Your task to perform on an android device: Go to sound settings Image 0: 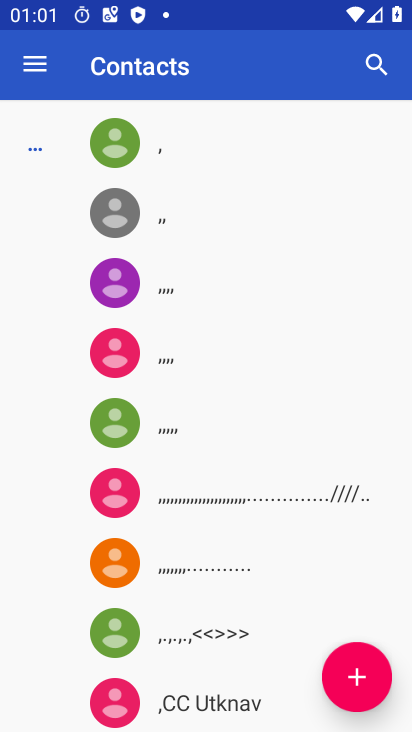
Step 0: press home button
Your task to perform on an android device: Go to sound settings Image 1: 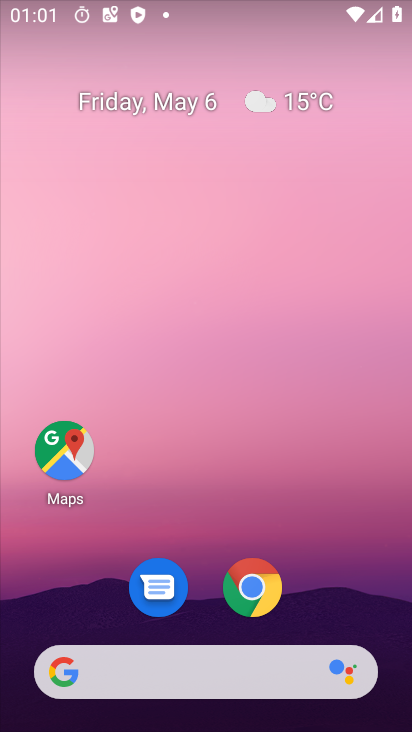
Step 1: drag from (391, 596) to (378, 348)
Your task to perform on an android device: Go to sound settings Image 2: 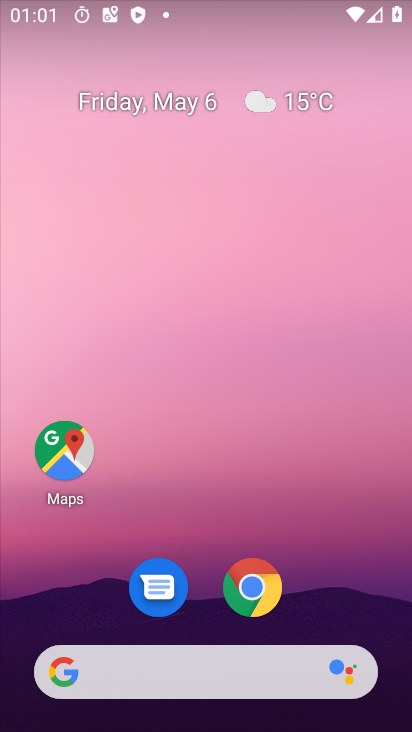
Step 2: drag from (369, 601) to (359, 366)
Your task to perform on an android device: Go to sound settings Image 3: 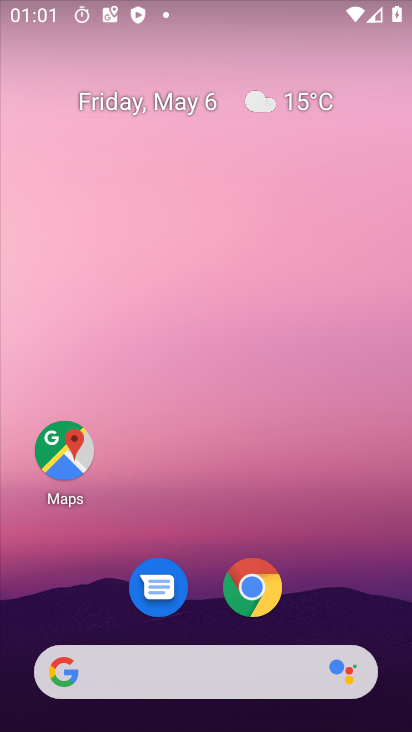
Step 3: drag from (398, 608) to (385, 417)
Your task to perform on an android device: Go to sound settings Image 4: 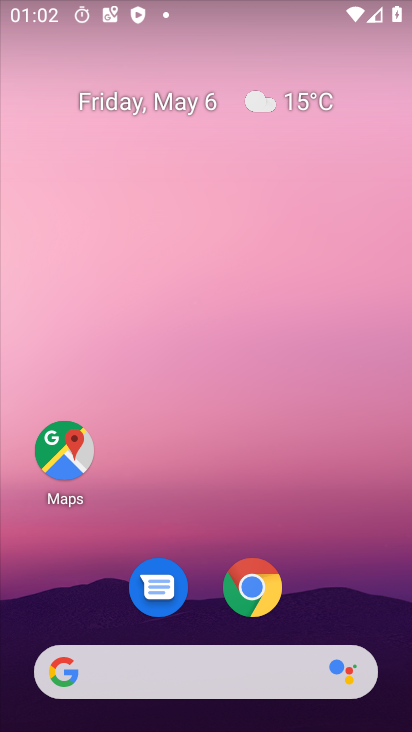
Step 4: drag from (383, 625) to (279, 216)
Your task to perform on an android device: Go to sound settings Image 5: 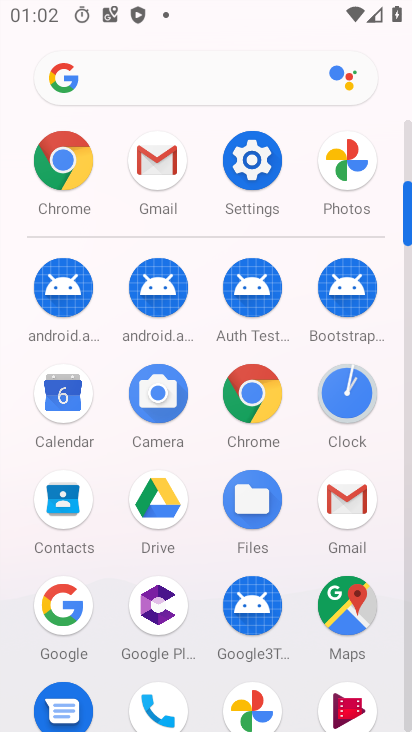
Step 5: click (251, 166)
Your task to perform on an android device: Go to sound settings Image 6: 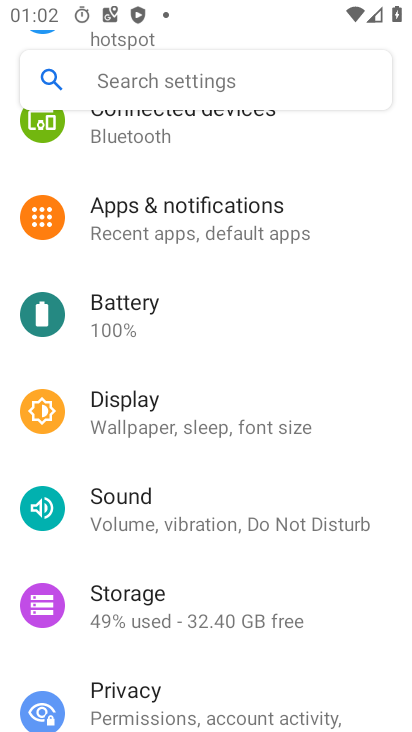
Step 6: click (104, 482)
Your task to perform on an android device: Go to sound settings Image 7: 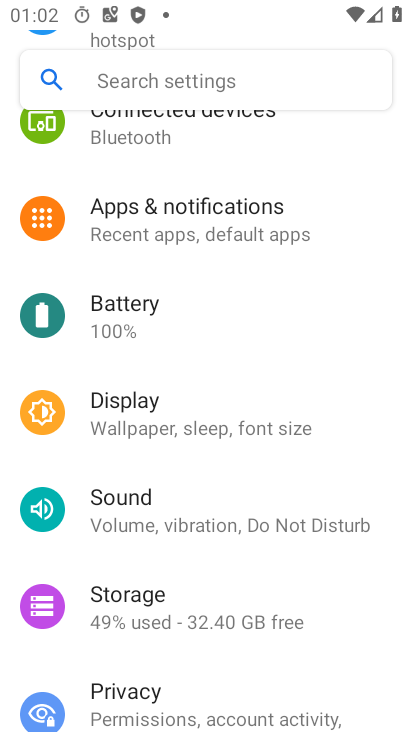
Step 7: click (140, 505)
Your task to perform on an android device: Go to sound settings Image 8: 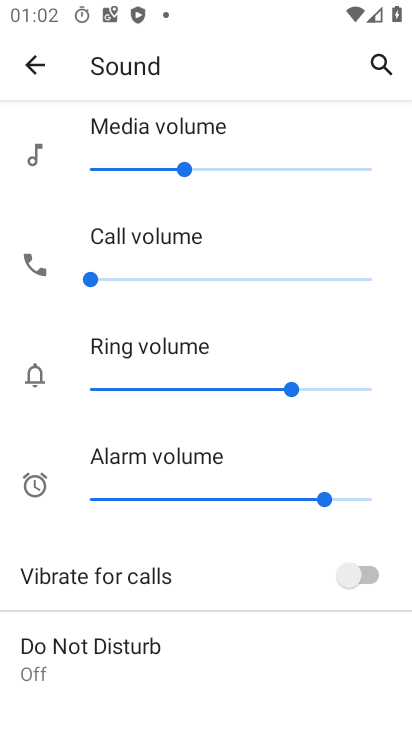
Step 8: task complete